Your task to perform on an android device: Search for sushi restaurants on Maps Image 0: 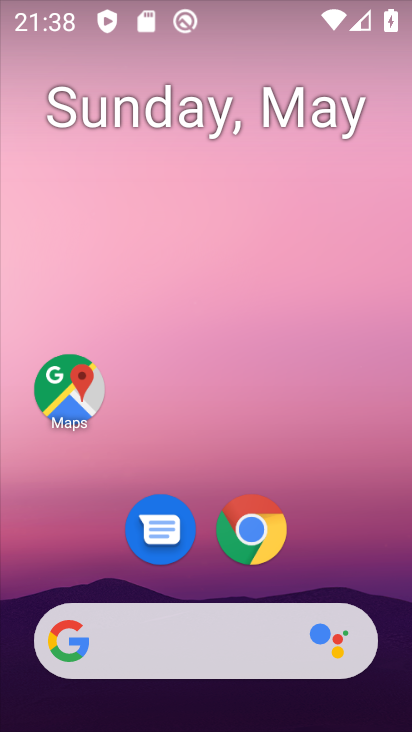
Step 0: click (60, 386)
Your task to perform on an android device: Search for sushi restaurants on Maps Image 1: 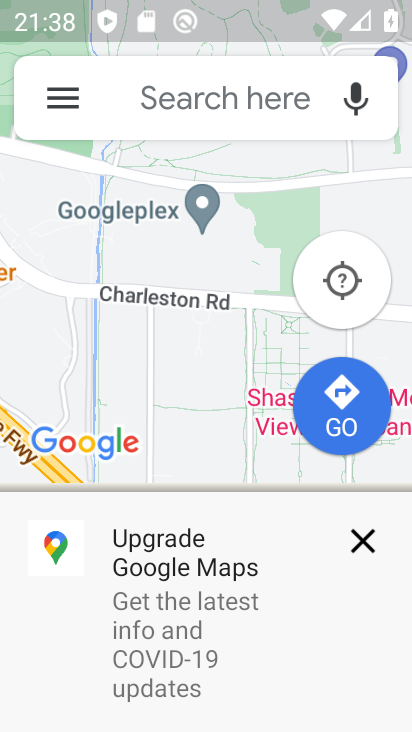
Step 1: click (186, 107)
Your task to perform on an android device: Search for sushi restaurants on Maps Image 2: 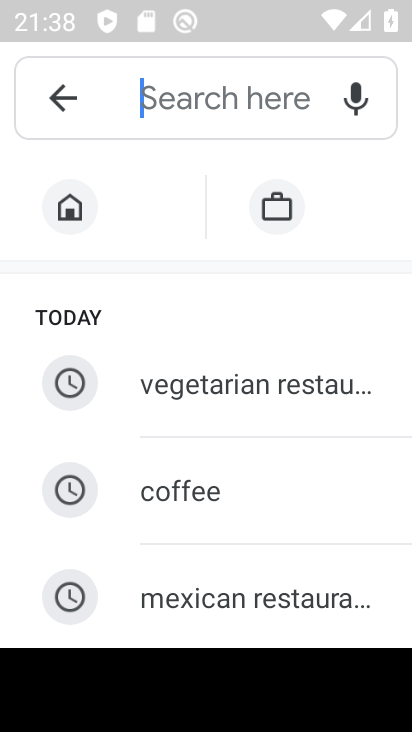
Step 2: type "sushi restaurants"
Your task to perform on an android device: Search for sushi restaurants on Maps Image 3: 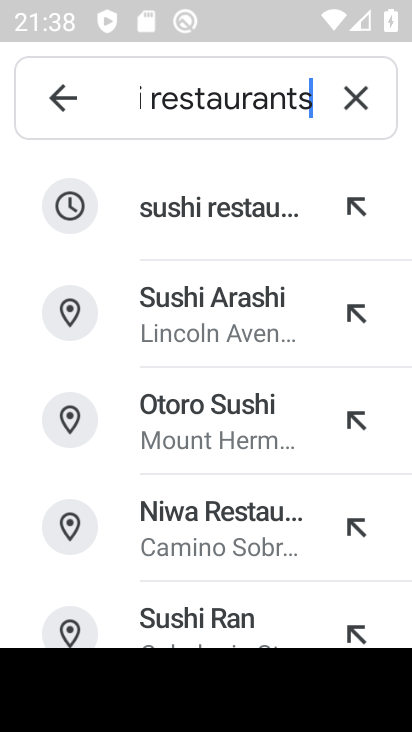
Step 3: click (260, 199)
Your task to perform on an android device: Search for sushi restaurants on Maps Image 4: 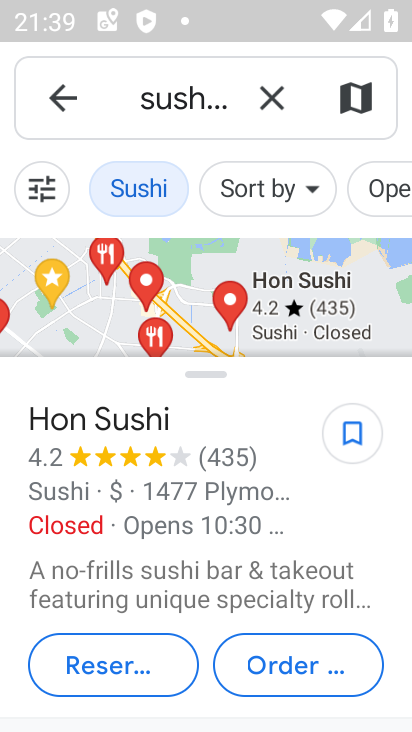
Step 4: task complete